Your task to perform on an android device: delete the emails in spam in the gmail app Image 0: 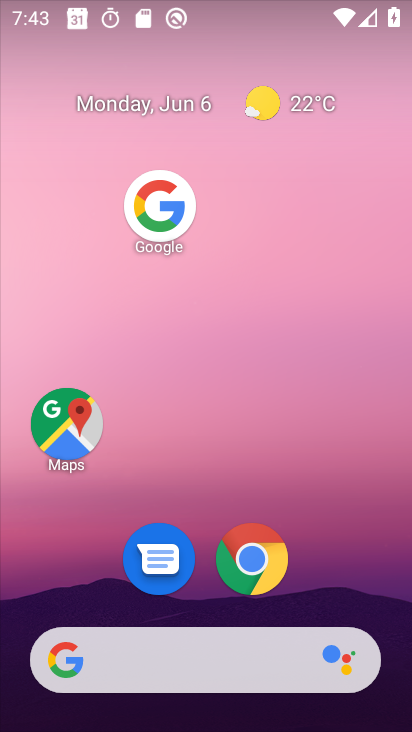
Step 0: drag from (193, 612) to (249, 197)
Your task to perform on an android device: delete the emails in spam in the gmail app Image 1: 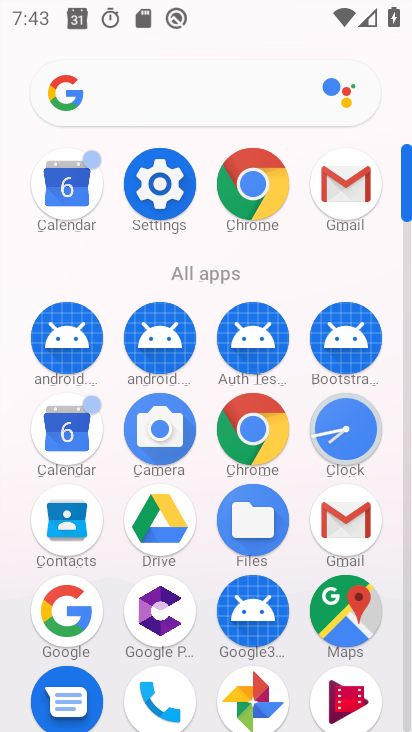
Step 1: click (337, 192)
Your task to perform on an android device: delete the emails in spam in the gmail app Image 2: 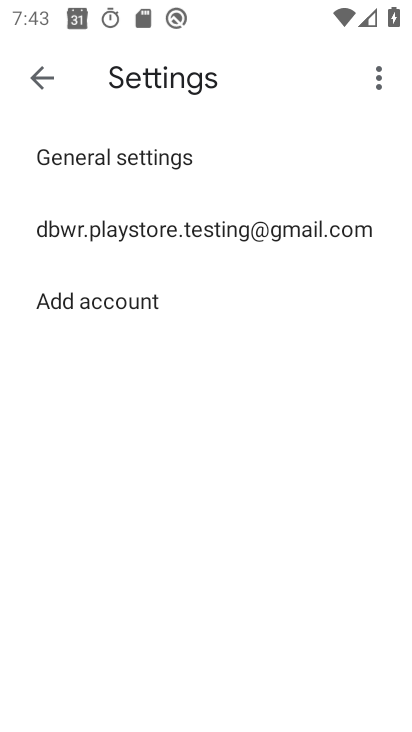
Step 2: click (51, 77)
Your task to perform on an android device: delete the emails in spam in the gmail app Image 3: 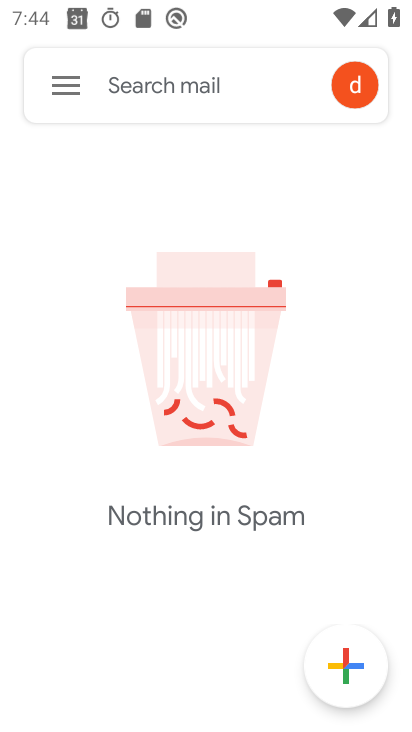
Step 3: click (50, 83)
Your task to perform on an android device: delete the emails in spam in the gmail app Image 4: 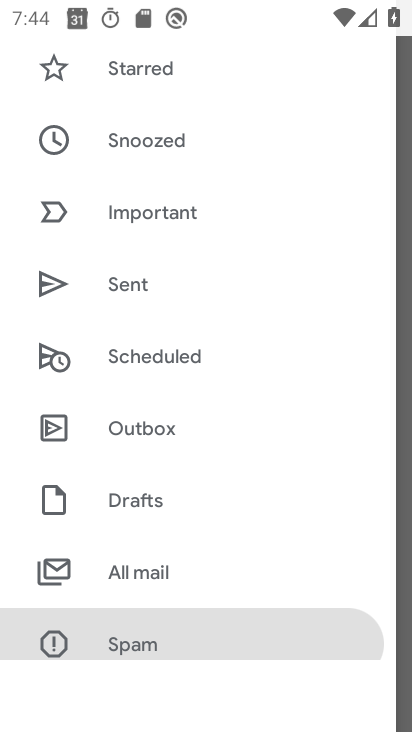
Step 4: click (154, 650)
Your task to perform on an android device: delete the emails in spam in the gmail app Image 5: 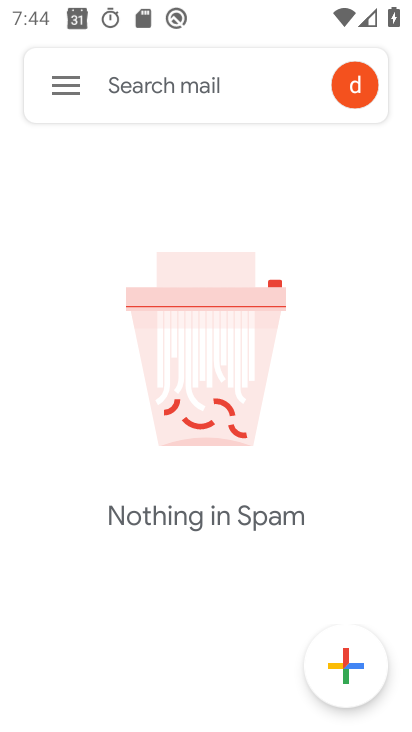
Step 5: task complete